Your task to perform on an android device: empty trash in google photos Image 0: 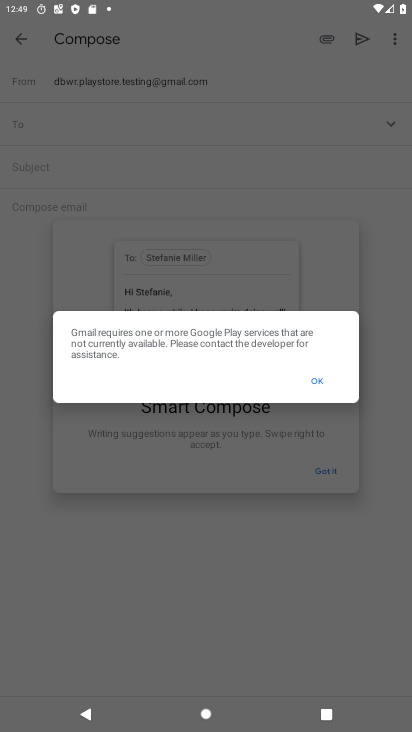
Step 0: click (310, 376)
Your task to perform on an android device: empty trash in google photos Image 1: 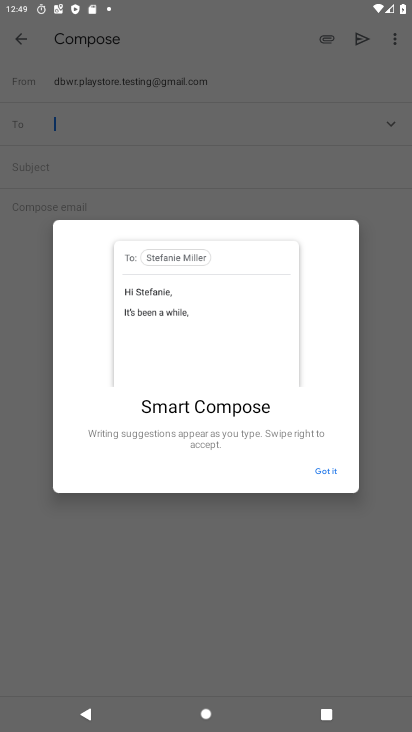
Step 1: click (326, 476)
Your task to perform on an android device: empty trash in google photos Image 2: 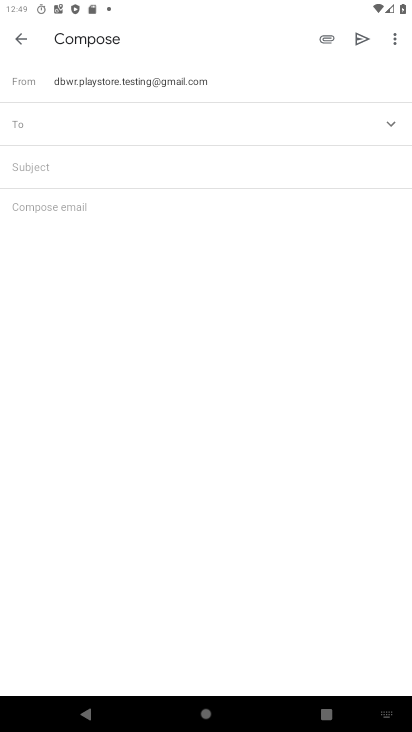
Step 2: click (326, 476)
Your task to perform on an android device: empty trash in google photos Image 3: 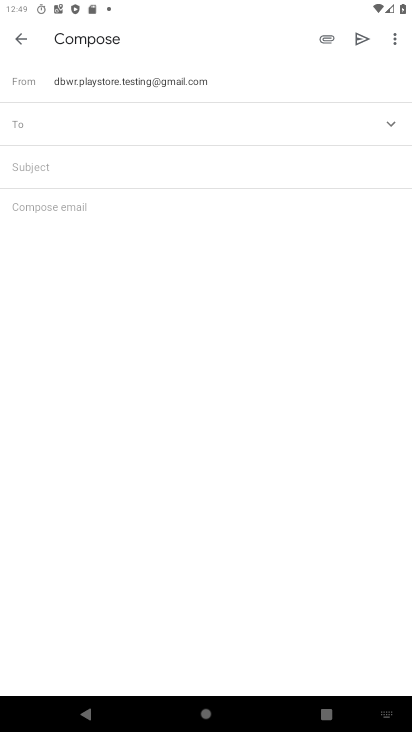
Step 3: click (23, 75)
Your task to perform on an android device: empty trash in google photos Image 4: 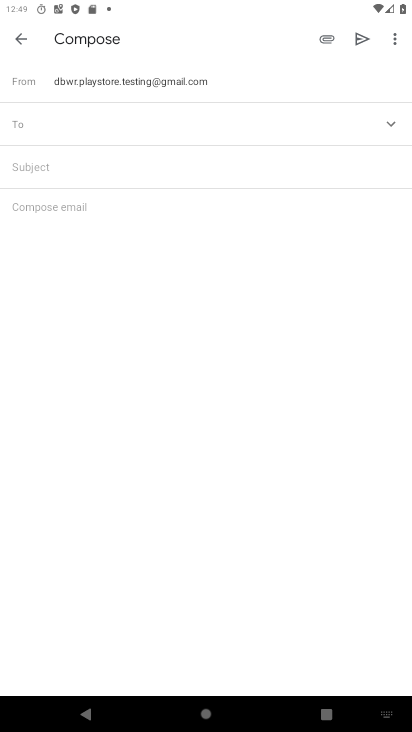
Step 4: click (21, 83)
Your task to perform on an android device: empty trash in google photos Image 5: 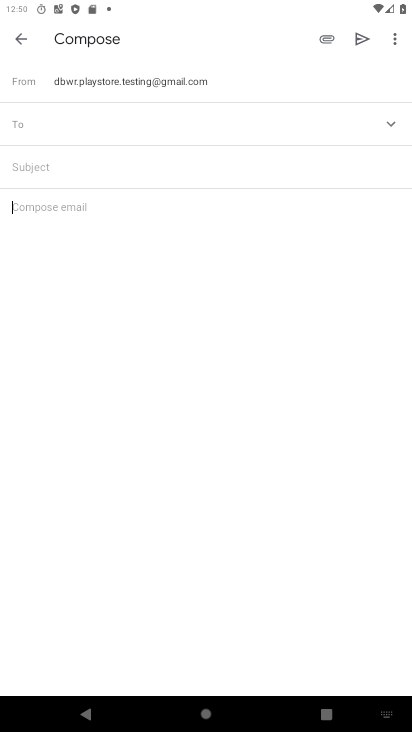
Step 5: click (144, 166)
Your task to perform on an android device: empty trash in google photos Image 6: 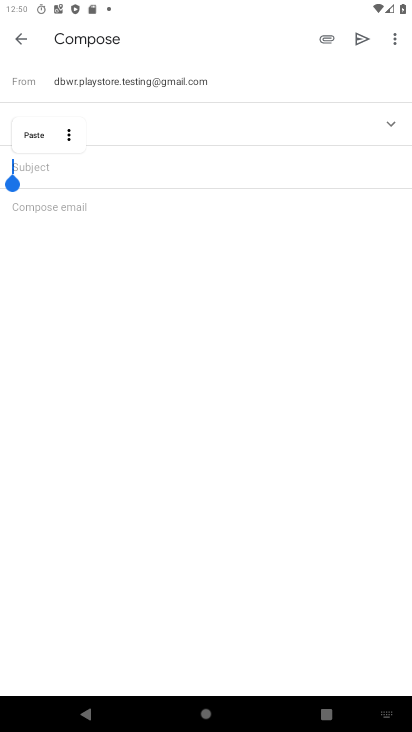
Step 6: click (25, 50)
Your task to perform on an android device: empty trash in google photos Image 7: 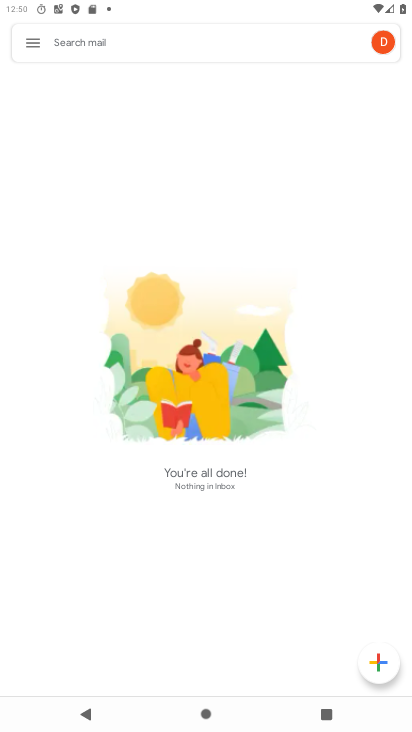
Step 7: click (41, 36)
Your task to perform on an android device: empty trash in google photos Image 8: 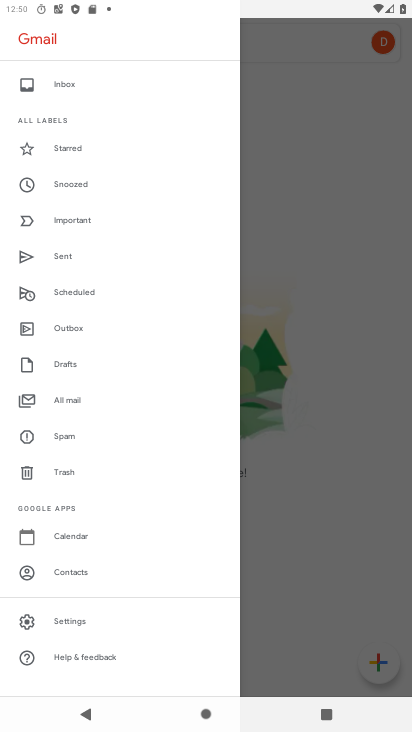
Step 8: click (74, 477)
Your task to perform on an android device: empty trash in google photos Image 9: 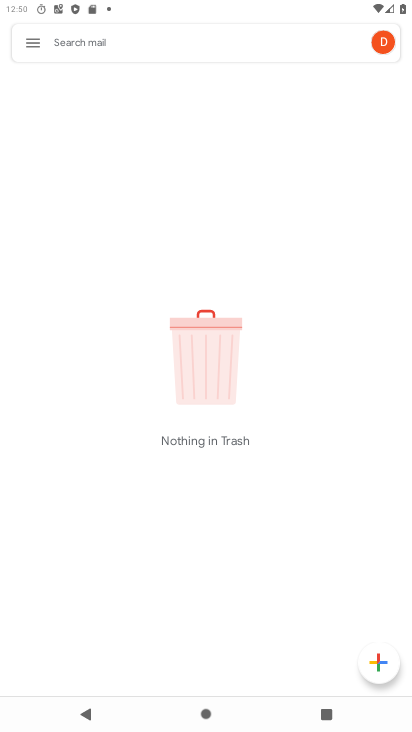
Step 9: task complete